Your task to perform on an android device: turn on the 12-hour format for clock Image 0: 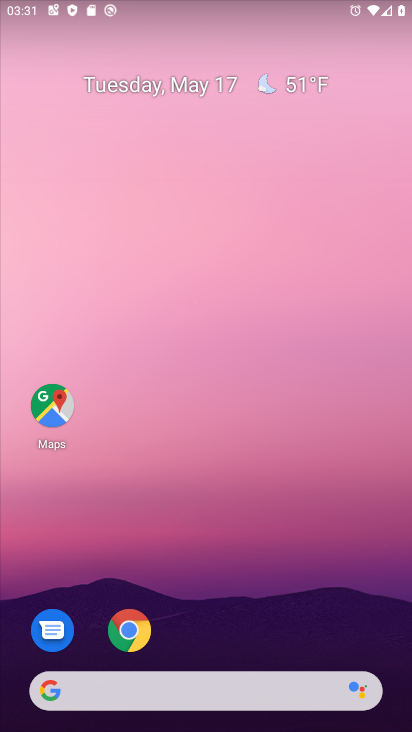
Step 0: drag from (205, 607) to (329, 40)
Your task to perform on an android device: turn on the 12-hour format for clock Image 1: 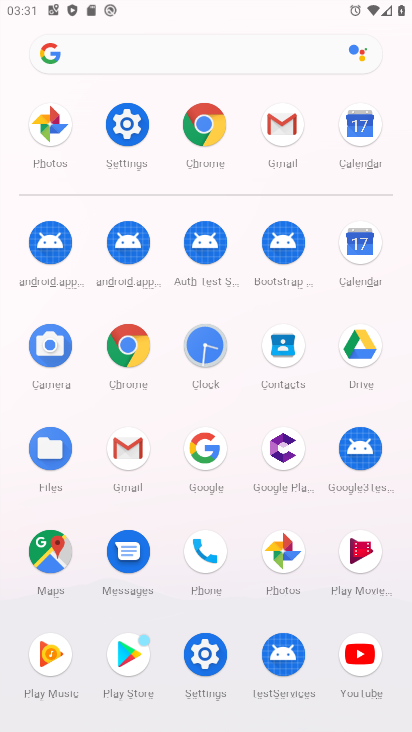
Step 1: click (201, 347)
Your task to perform on an android device: turn on the 12-hour format for clock Image 2: 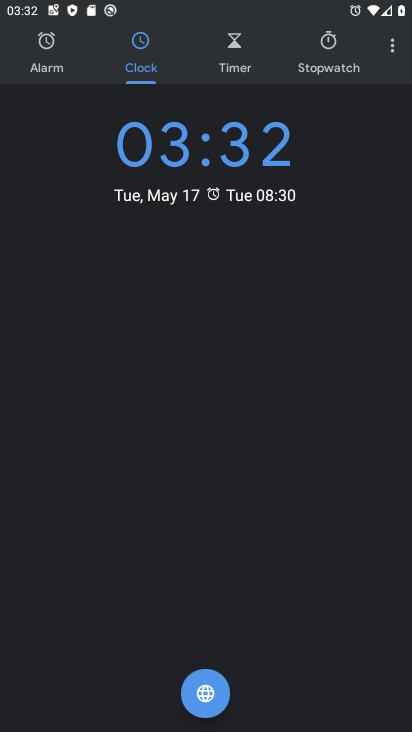
Step 2: drag from (389, 38) to (336, 136)
Your task to perform on an android device: turn on the 12-hour format for clock Image 3: 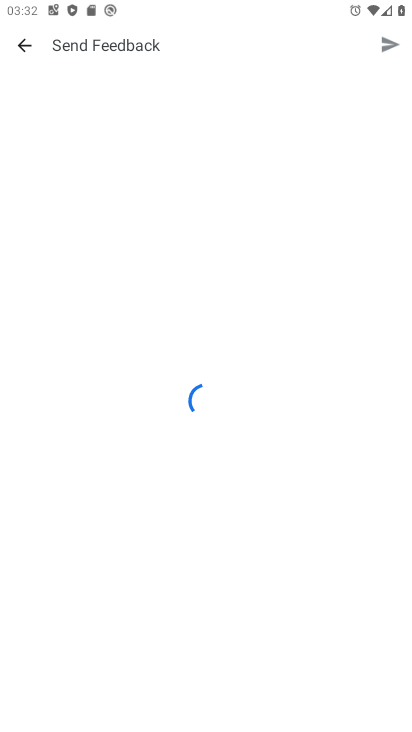
Step 3: press back button
Your task to perform on an android device: turn on the 12-hour format for clock Image 4: 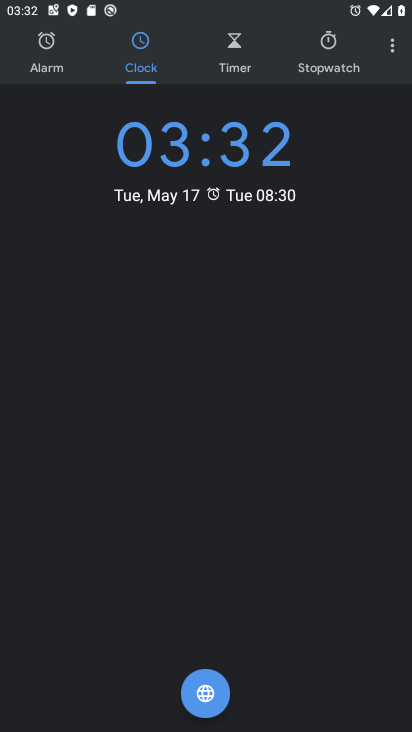
Step 4: click (393, 49)
Your task to perform on an android device: turn on the 12-hour format for clock Image 5: 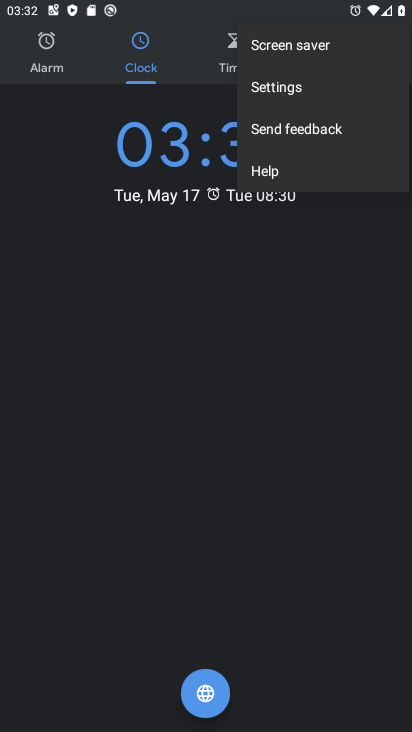
Step 5: click (305, 93)
Your task to perform on an android device: turn on the 12-hour format for clock Image 6: 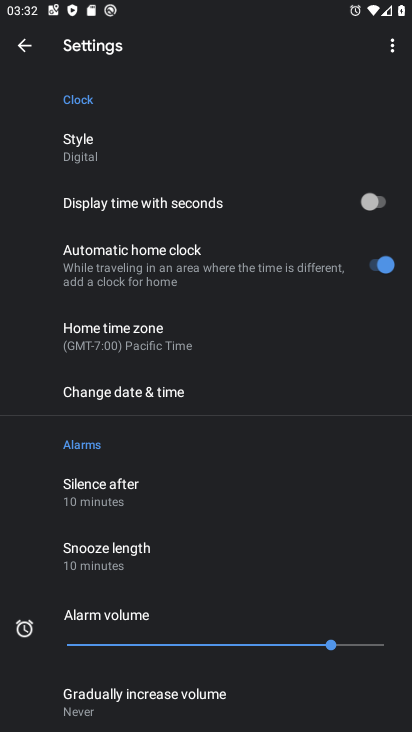
Step 6: click (129, 401)
Your task to perform on an android device: turn on the 12-hour format for clock Image 7: 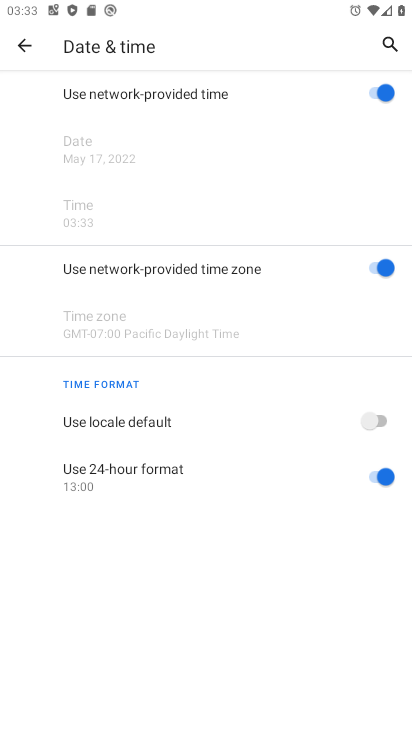
Step 7: click (376, 466)
Your task to perform on an android device: turn on the 12-hour format for clock Image 8: 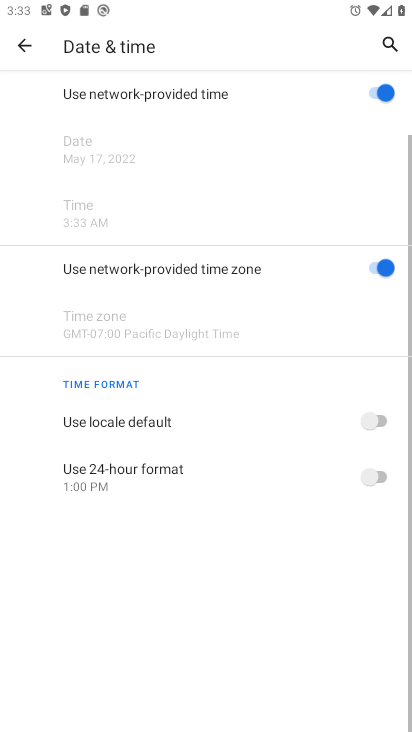
Step 8: click (382, 417)
Your task to perform on an android device: turn on the 12-hour format for clock Image 9: 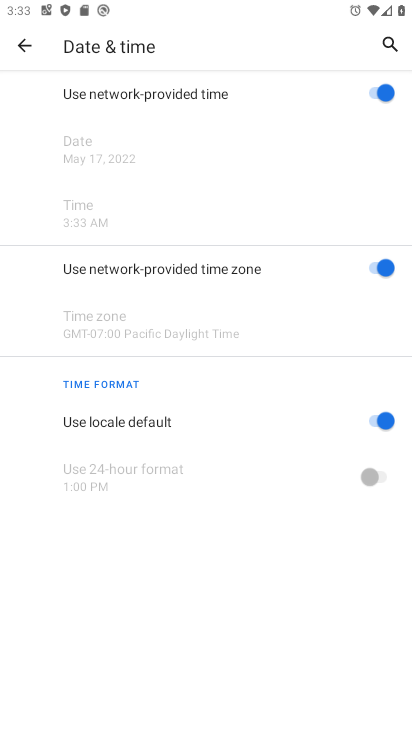
Step 9: task complete